Your task to perform on an android device: See recent photos Image 0: 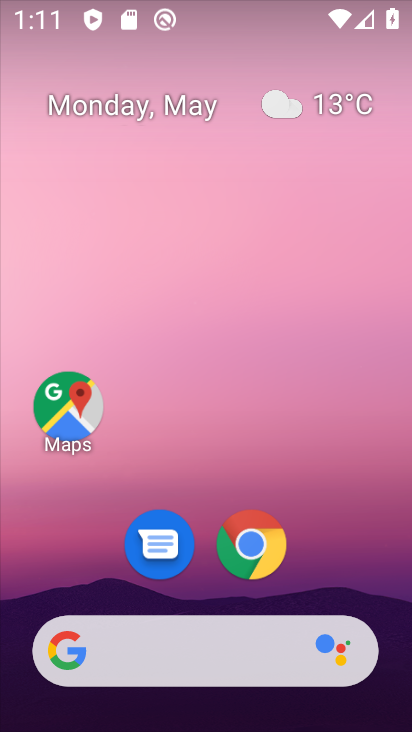
Step 0: drag from (397, 637) to (290, 22)
Your task to perform on an android device: See recent photos Image 1: 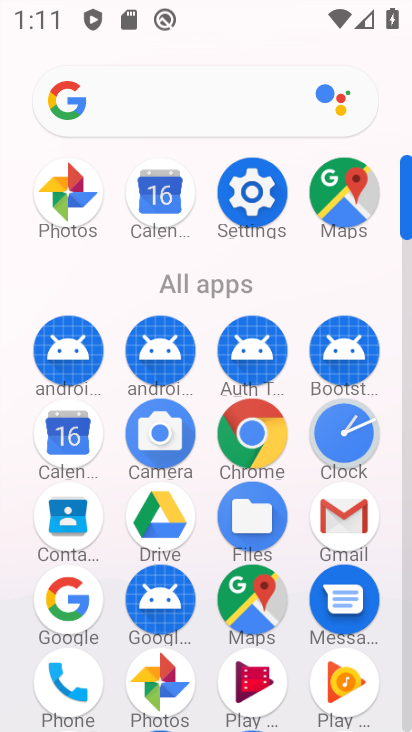
Step 1: click (407, 694)
Your task to perform on an android device: See recent photos Image 2: 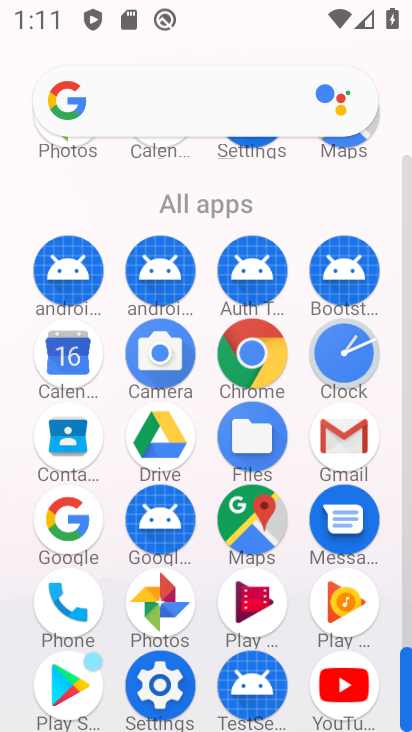
Step 2: click (160, 599)
Your task to perform on an android device: See recent photos Image 3: 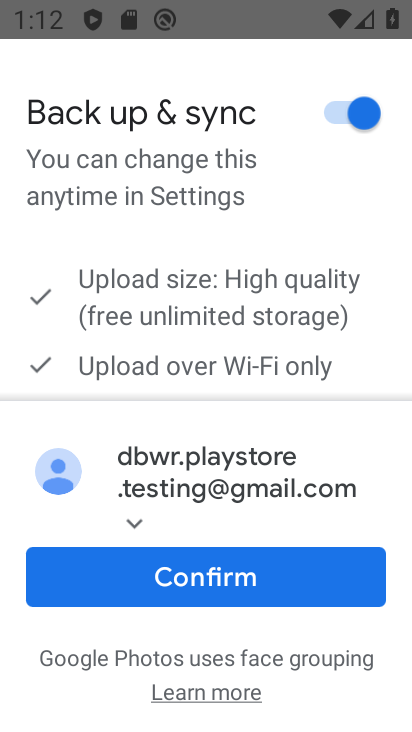
Step 3: click (192, 575)
Your task to perform on an android device: See recent photos Image 4: 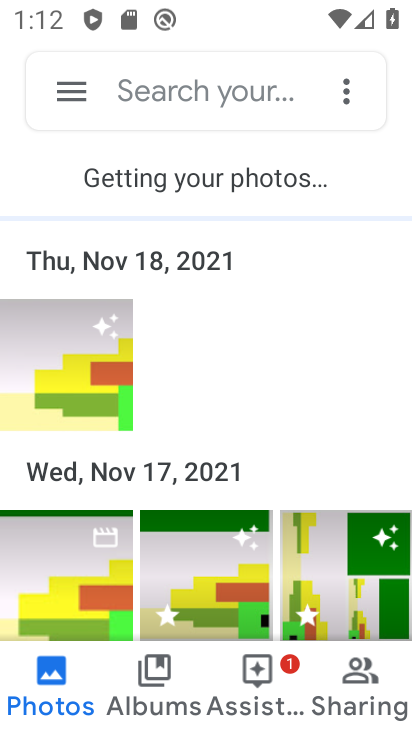
Step 4: task complete